Your task to perform on an android device: When is my next meeting? Image 0: 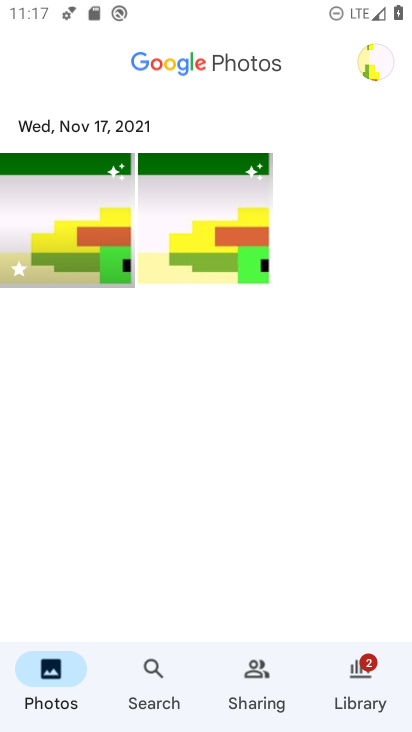
Step 0: press home button
Your task to perform on an android device: When is my next meeting? Image 1: 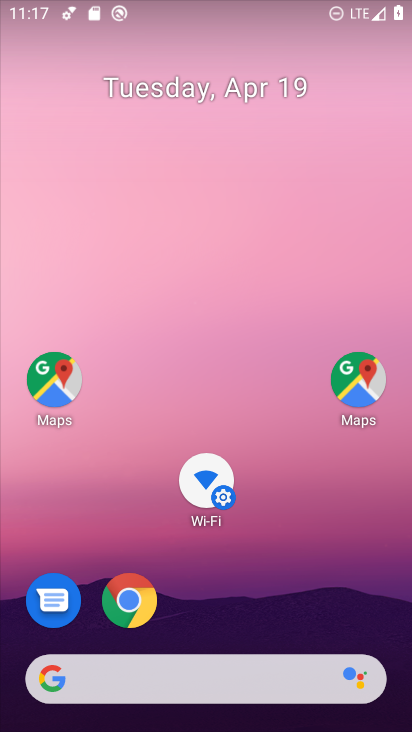
Step 1: drag from (313, 634) to (321, 40)
Your task to perform on an android device: When is my next meeting? Image 2: 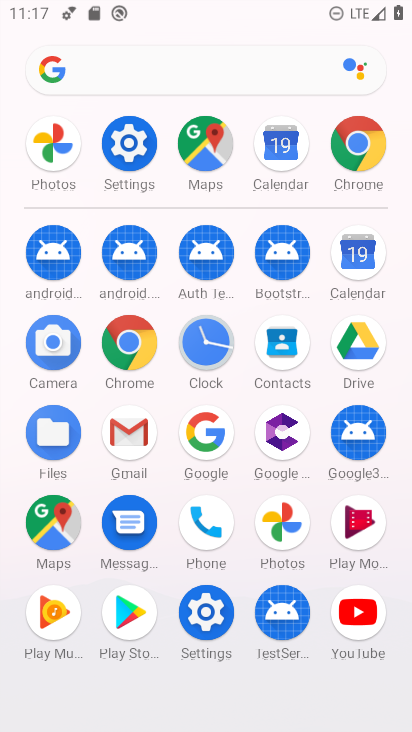
Step 2: click (363, 253)
Your task to perform on an android device: When is my next meeting? Image 3: 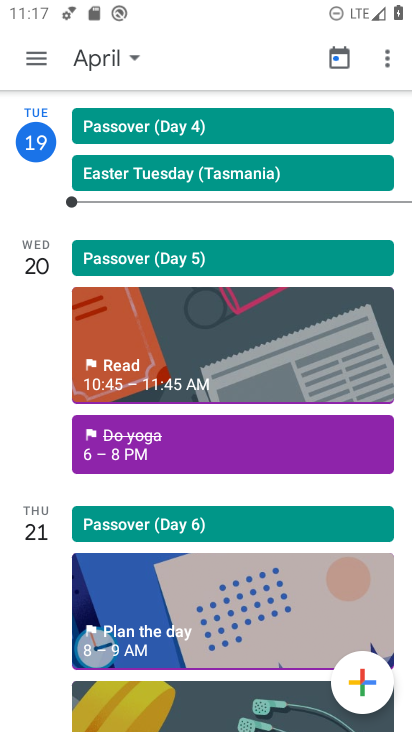
Step 3: click (128, 58)
Your task to perform on an android device: When is my next meeting? Image 4: 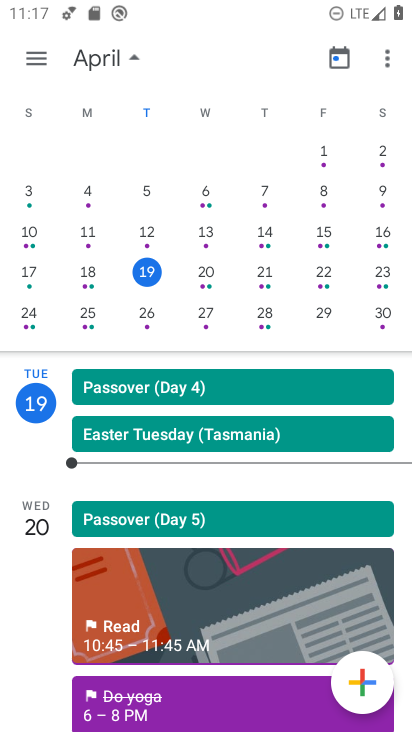
Step 4: click (376, 278)
Your task to perform on an android device: When is my next meeting? Image 5: 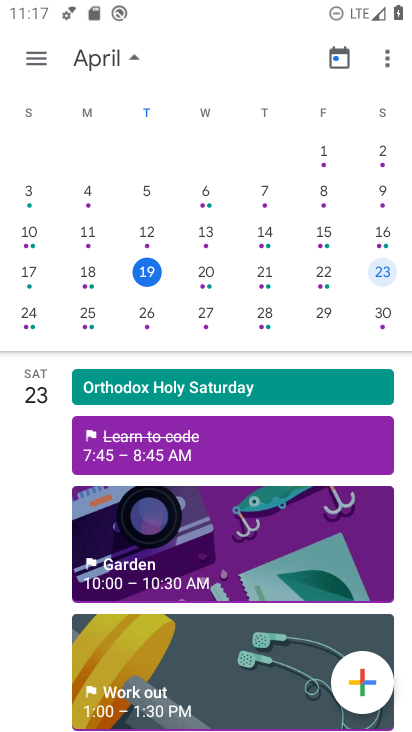
Step 5: task complete